Your task to perform on an android device: make emails show in primary in the gmail app Image 0: 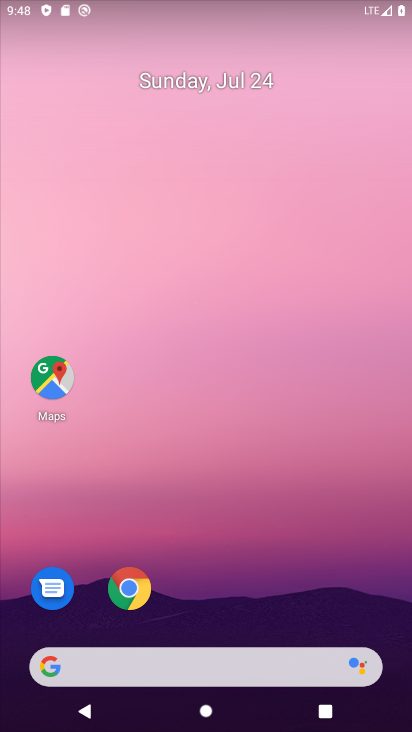
Step 0: drag from (248, 700) to (266, 2)
Your task to perform on an android device: make emails show in primary in the gmail app Image 1: 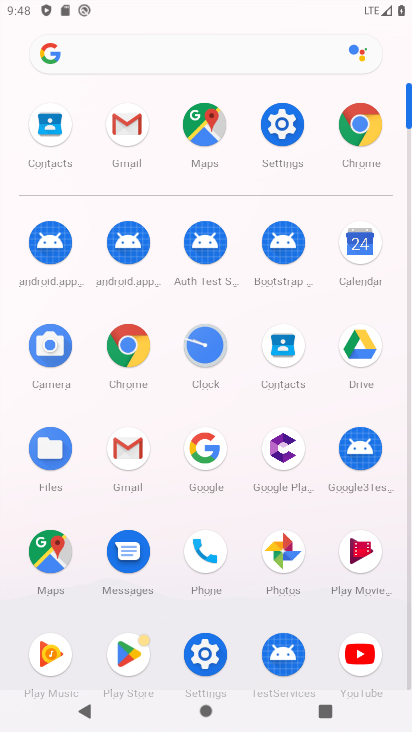
Step 1: click (129, 121)
Your task to perform on an android device: make emails show in primary in the gmail app Image 2: 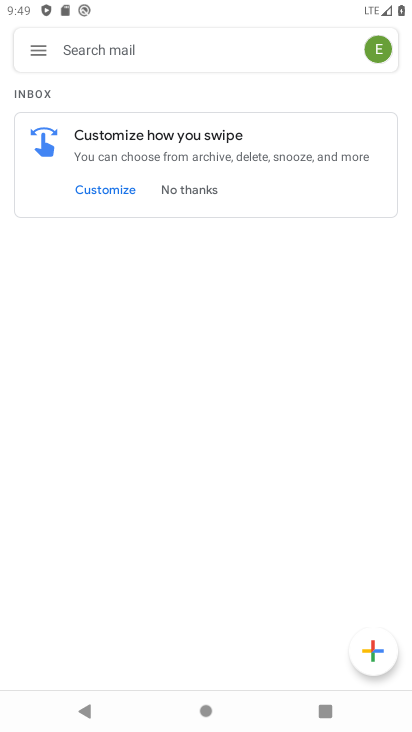
Step 2: click (40, 47)
Your task to perform on an android device: make emails show in primary in the gmail app Image 3: 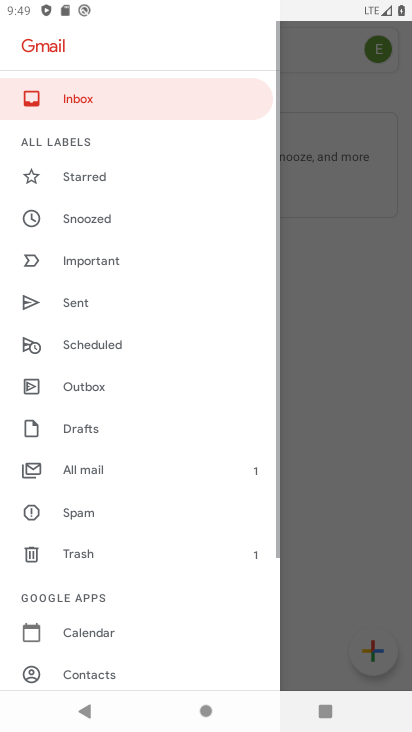
Step 3: drag from (117, 629) to (243, 15)
Your task to perform on an android device: make emails show in primary in the gmail app Image 4: 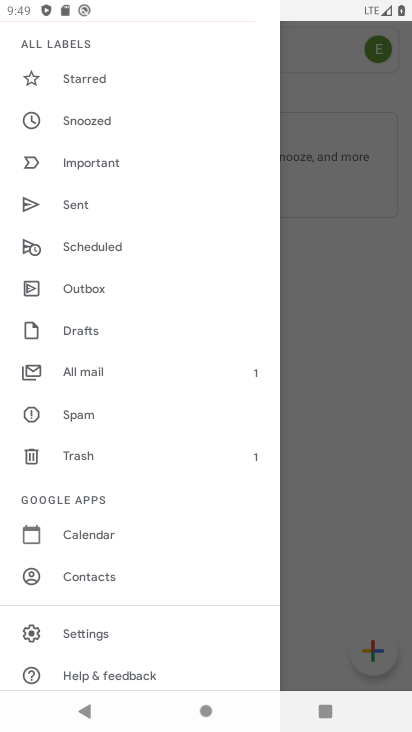
Step 4: click (129, 623)
Your task to perform on an android device: make emails show in primary in the gmail app Image 5: 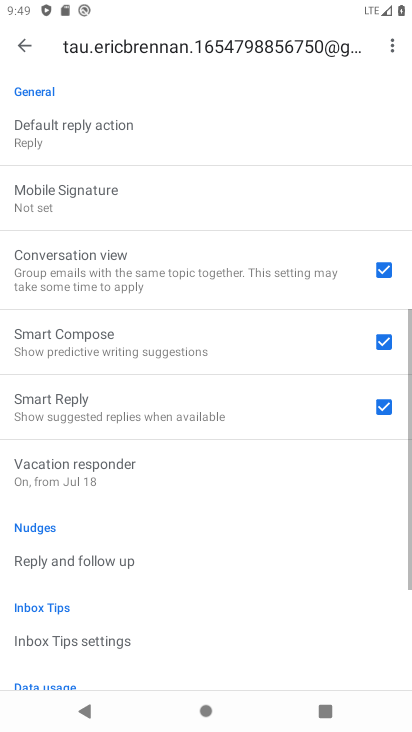
Step 5: task complete